Your task to perform on an android device: When is my next meeting? Image 0: 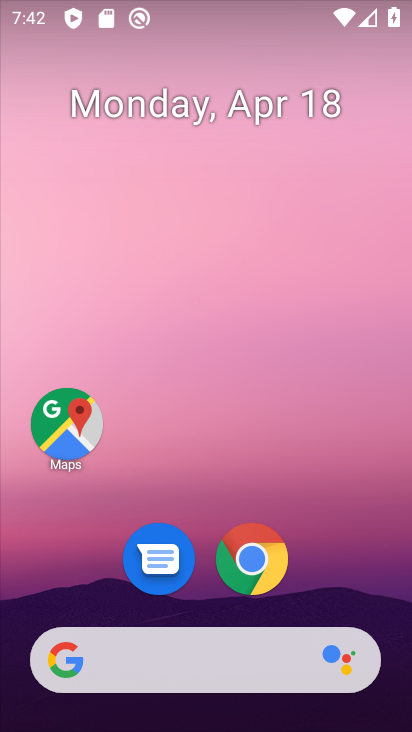
Step 0: drag from (207, 561) to (232, 150)
Your task to perform on an android device: When is my next meeting? Image 1: 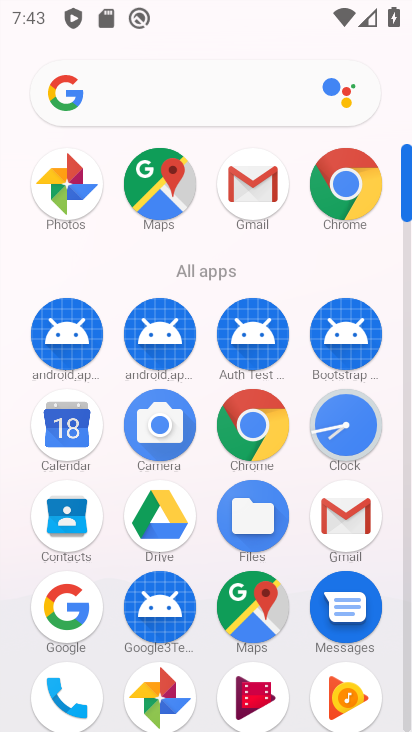
Step 1: click (159, 97)
Your task to perform on an android device: When is my next meeting? Image 2: 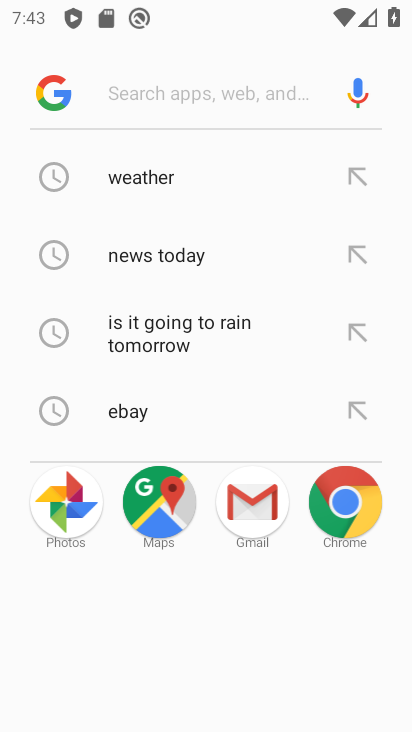
Step 2: type "When is my next meeting?"
Your task to perform on an android device: When is my next meeting? Image 3: 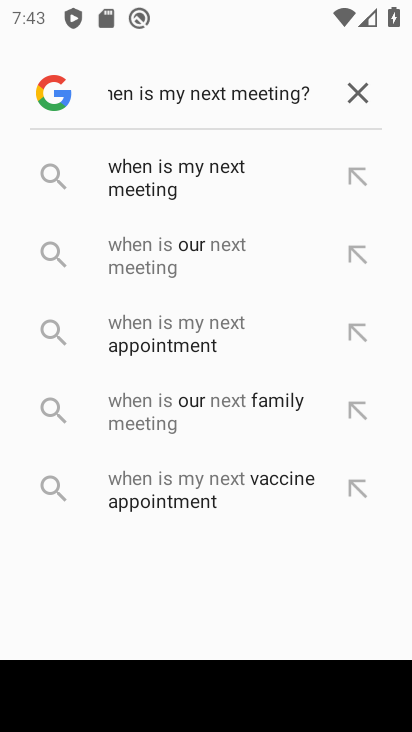
Step 3: click (202, 181)
Your task to perform on an android device: When is my next meeting? Image 4: 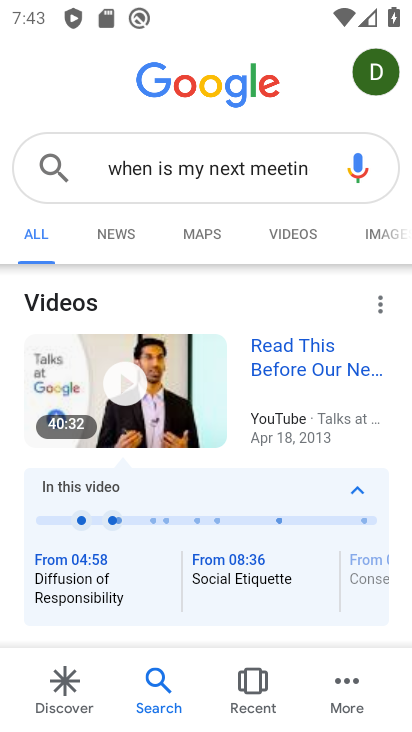
Step 4: task complete